Your task to perform on an android device: toggle show notifications on the lock screen Image 0: 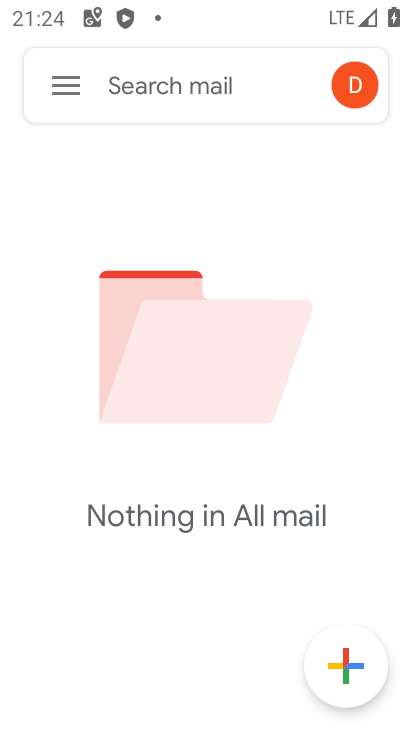
Step 0: press home button
Your task to perform on an android device: toggle show notifications on the lock screen Image 1: 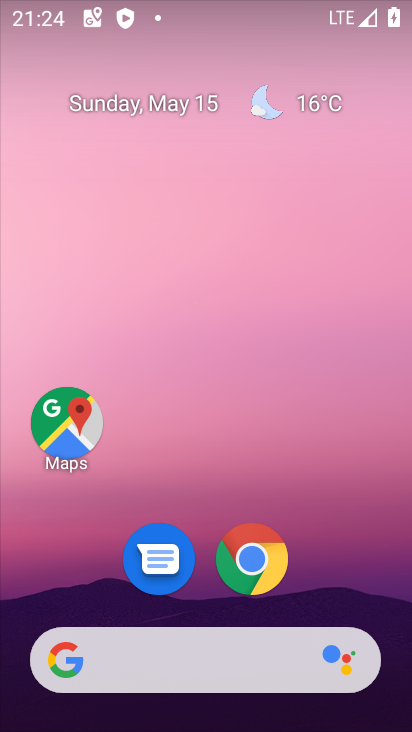
Step 1: drag from (189, 468) to (399, 24)
Your task to perform on an android device: toggle show notifications on the lock screen Image 2: 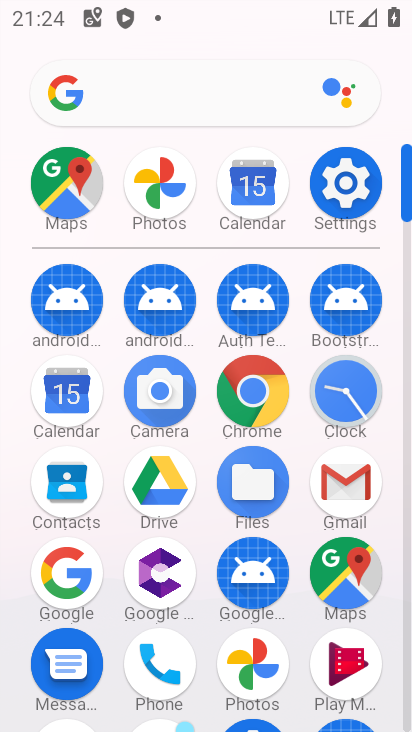
Step 2: click (345, 184)
Your task to perform on an android device: toggle show notifications on the lock screen Image 3: 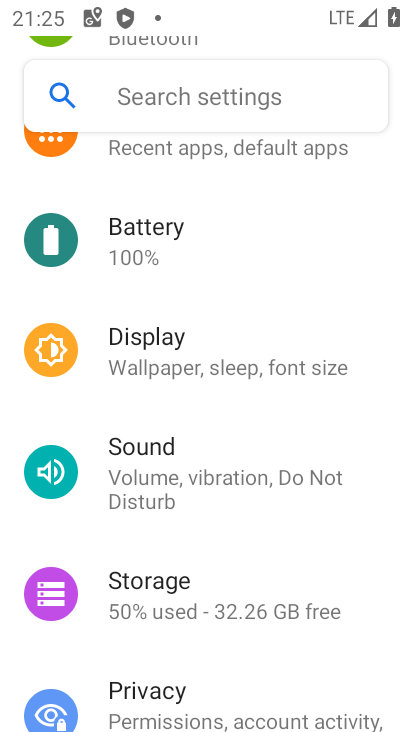
Step 3: drag from (224, 279) to (249, 714)
Your task to perform on an android device: toggle show notifications on the lock screen Image 4: 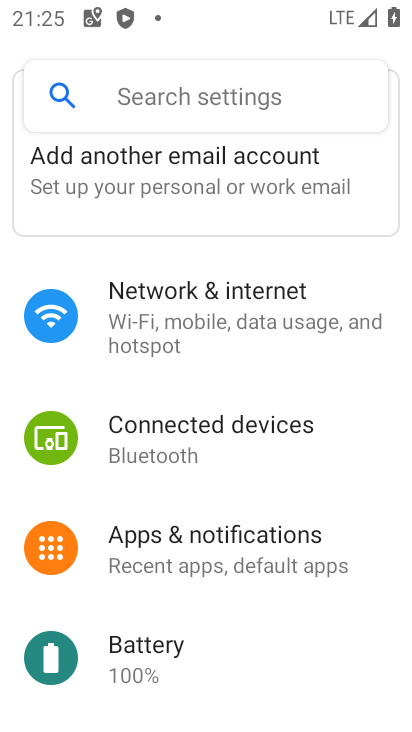
Step 4: click (207, 536)
Your task to perform on an android device: toggle show notifications on the lock screen Image 5: 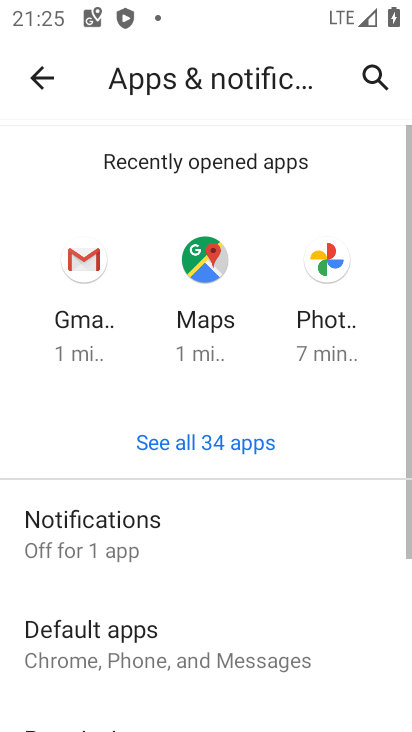
Step 5: drag from (222, 551) to (164, 221)
Your task to perform on an android device: toggle show notifications on the lock screen Image 6: 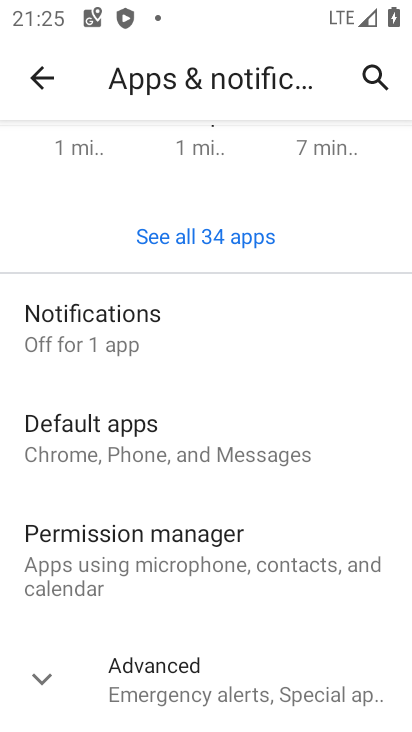
Step 6: click (97, 316)
Your task to perform on an android device: toggle show notifications on the lock screen Image 7: 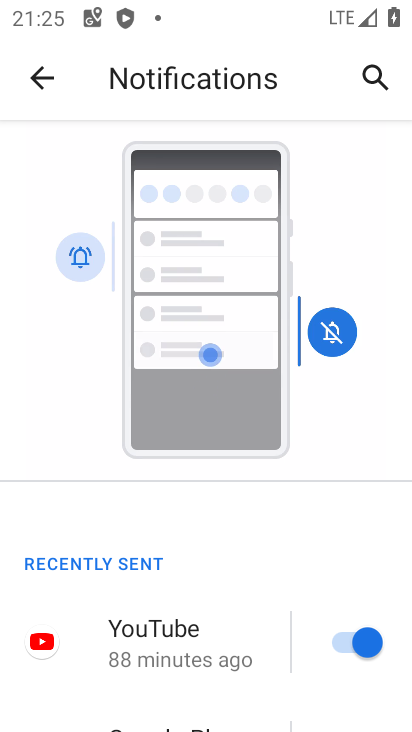
Step 7: drag from (252, 528) to (158, 0)
Your task to perform on an android device: toggle show notifications on the lock screen Image 8: 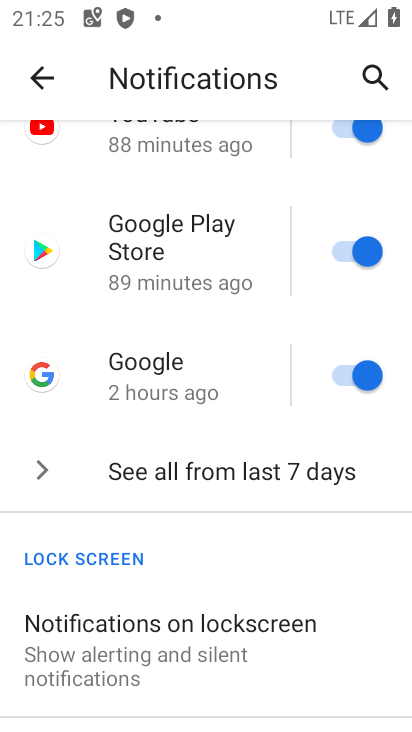
Step 8: click (213, 626)
Your task to perform on an android device: toggle show notifications on the lock screen Image 9: 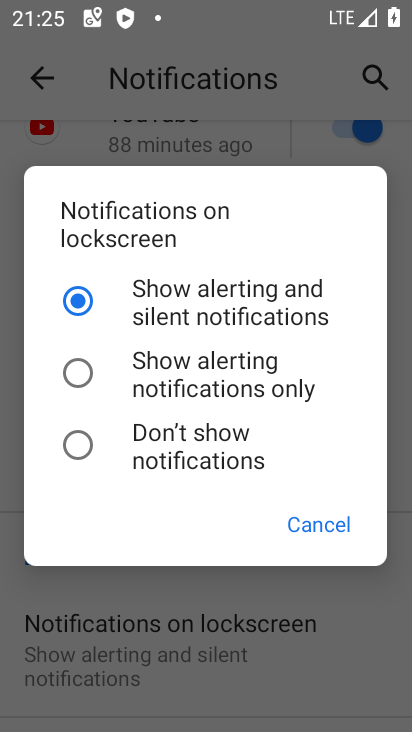
Step 9: click (79, 451)
Your task to perform on an android device: toggle show notifications on the lock screen Image 10: 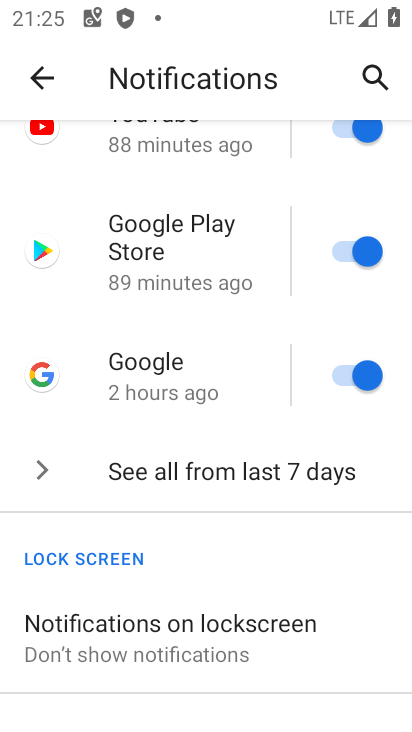
Step 10: task complete